Your task to perform on an android device: Go to network settings Image 0: 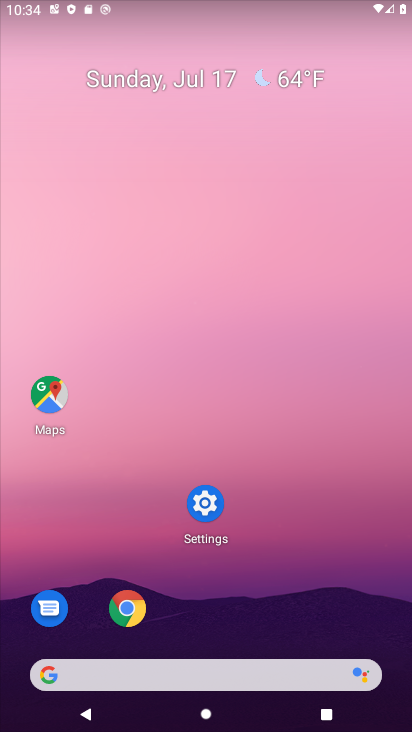
Step 0: click (203, 509)
Your task to perform on an android device: Go to network settings Image 1: 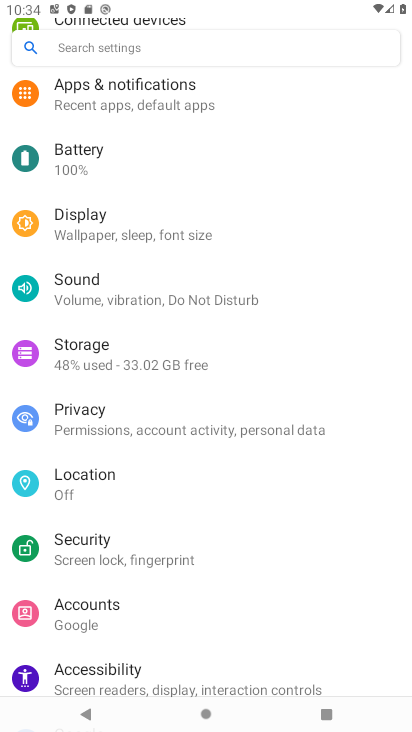
Step 1: drag from (226, 111) to (190, 686)
Your task to perform on an android device: Go to network settings Image 2: 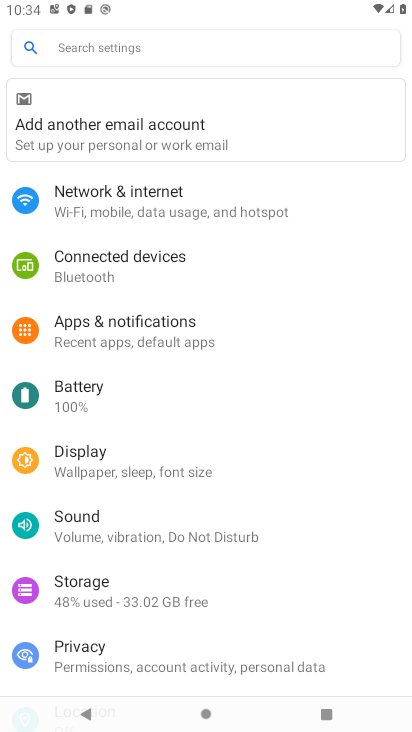
Step 2: click (102, 200)
Your task to perform on an android device: Go to network settings Image 3: 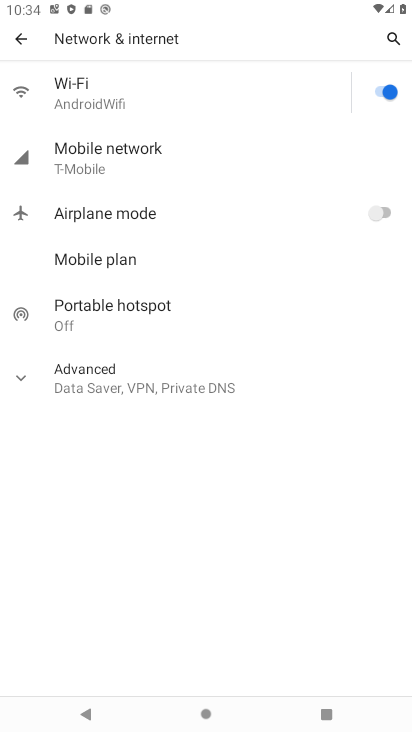
Step 3: click (122, 155)
Your task to perform on an android device: Go to network settings Image 4: 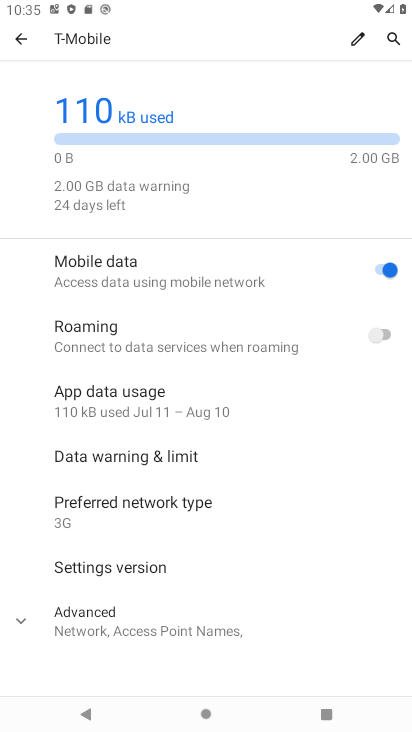
Step 4: click (30, 622)
Your task to perform on an android device: Go to network settings Image 5: 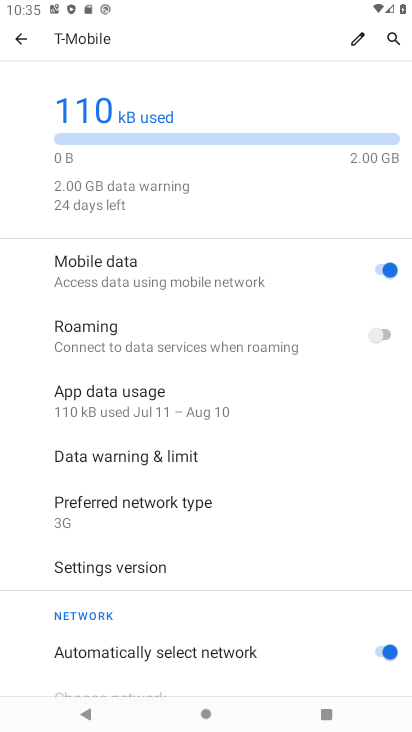
Step 5: task complete